Your task to perform on an android device: Open Reddit.com Image 0: 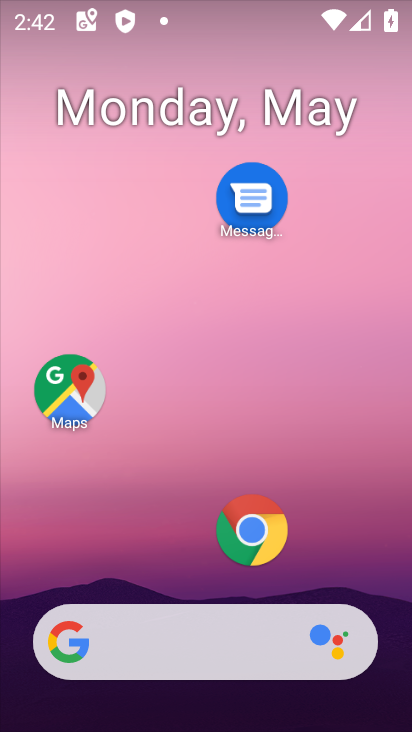
Step 0: click (242, 530)
Your task to perform on an android device: Open Reddit.com Image 1: 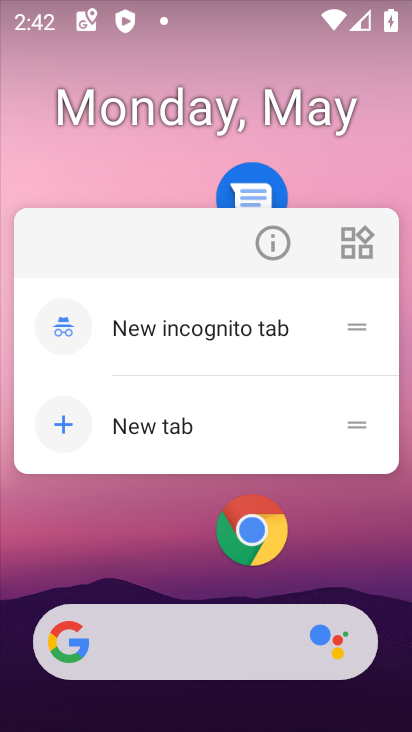
Step 1: click (254, 532)
Your task to perform on an android device: Open Reddit.com Image 2: 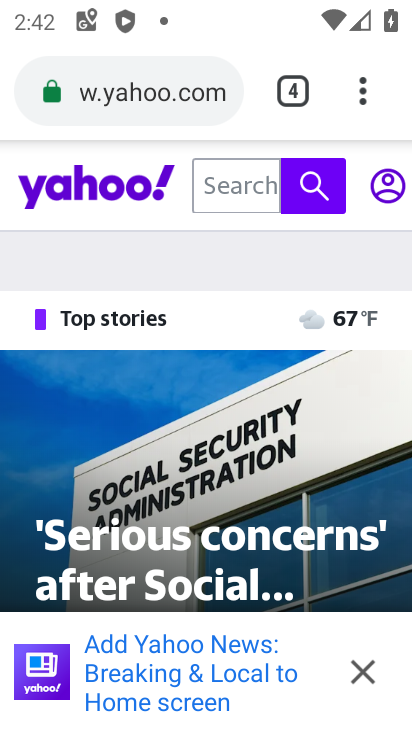
Step 2: click (296, 87)
Your task to perform on an android device: Open Reddit.com Image 3: 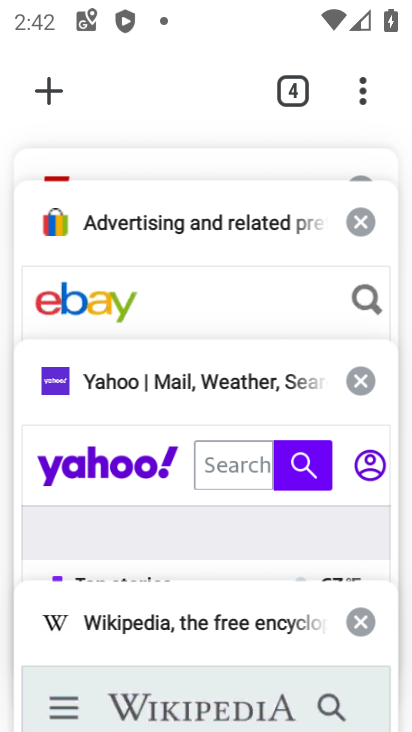
Step 3: drag from (155, 193) to (156, 608)
Your task to perform on an android device: Open Reddit.com Image 4: 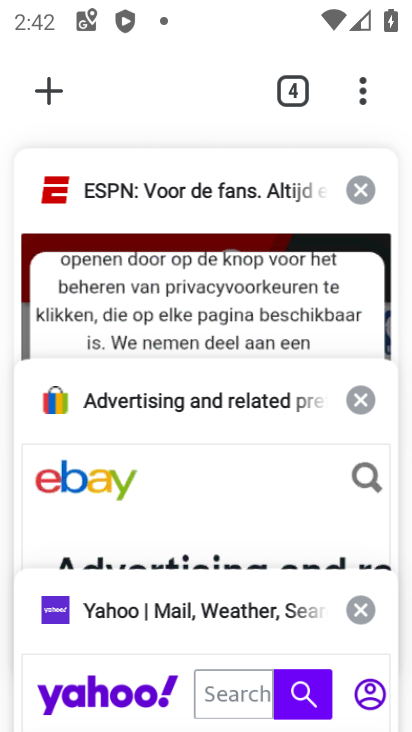
Step 4: click (42, 78)
Your task to perform on an android device: Open Reddit.com Image 5: 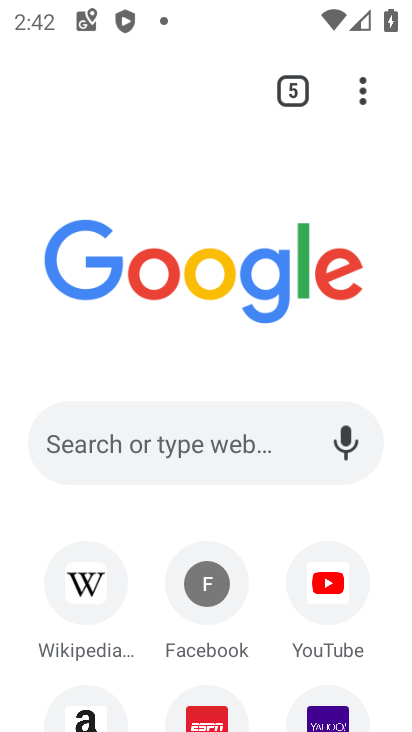
Step 5: click (168, 440)
Your task to perform on an android device: Open Reddit.com Image 6: 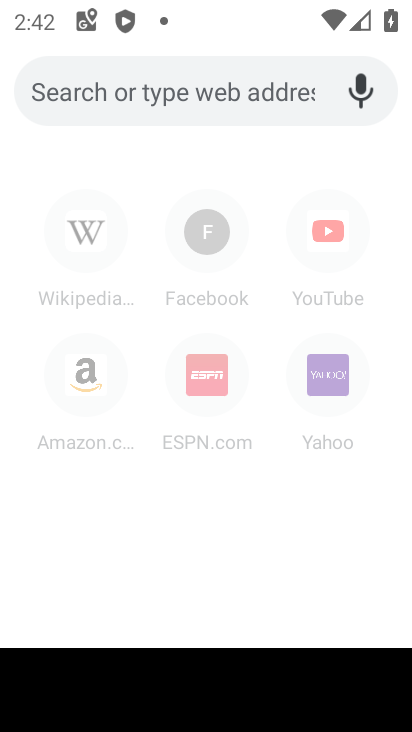
Step 6: type "reddit.com"
Your task to perform on an android device: Open Reddit.com Image 7: 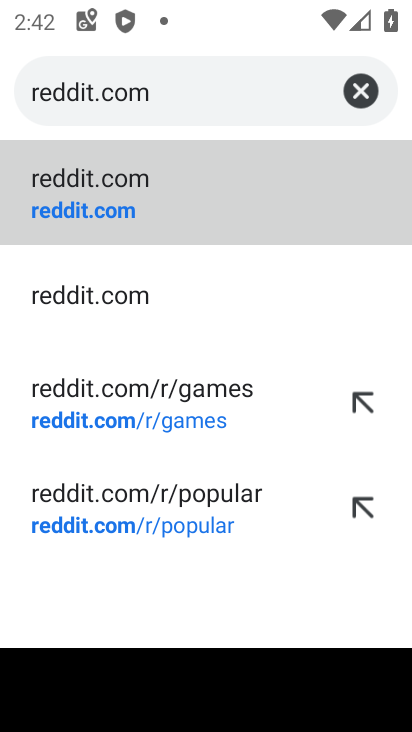
Step 7: click (109, 197)
Your task to perform on an android device: Open Reddit.com Image 8: 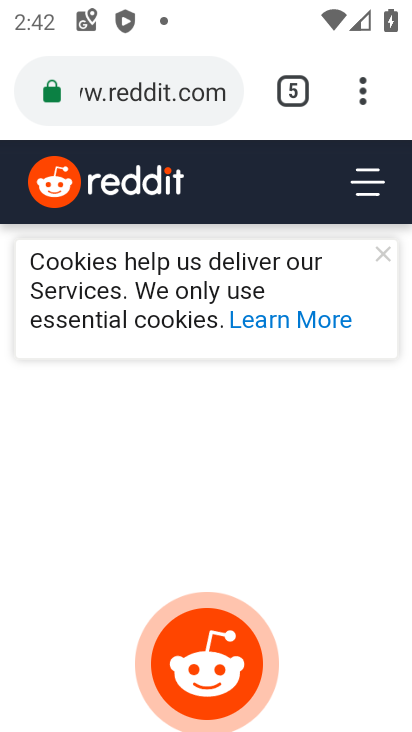
Step 8: task complete